Your task to perform on an android device: turn off location Image 0: 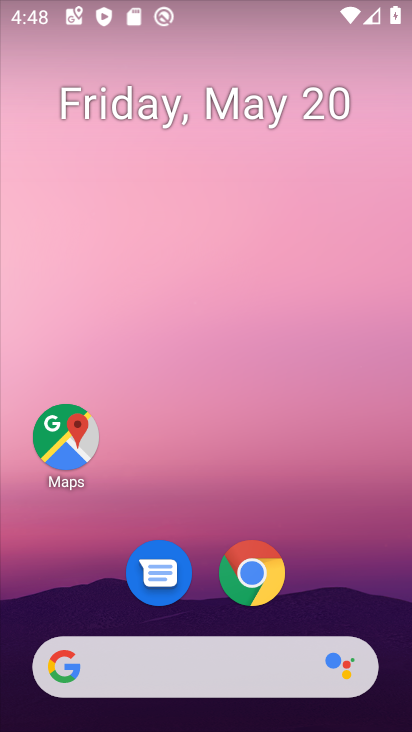
Step 0: drag from (380, 637) to (316, 307)
Your task to perform on an android device: turn off location Image 1: 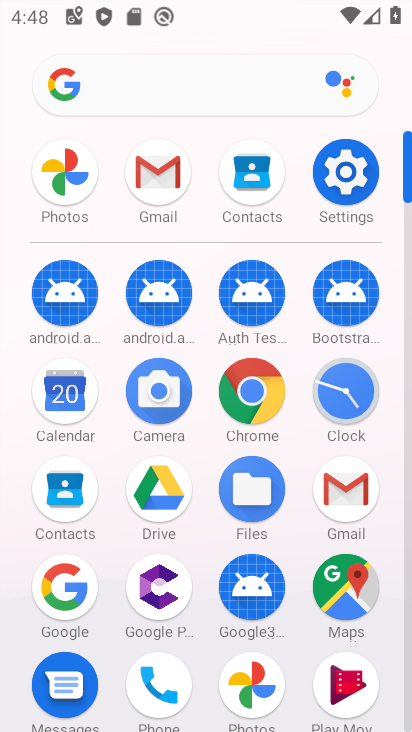
Step 1: click (411, 713)
Your task to perform on an android device: turn off location Image 2: 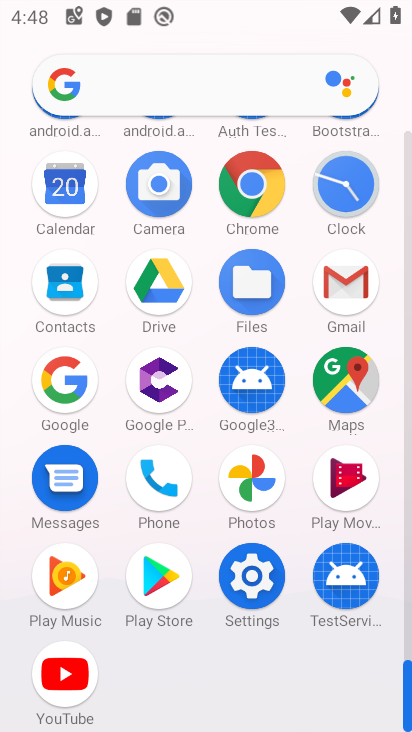
Step 2: click (254, 574)
Your task to perform on an android device: turn off location Image 3: 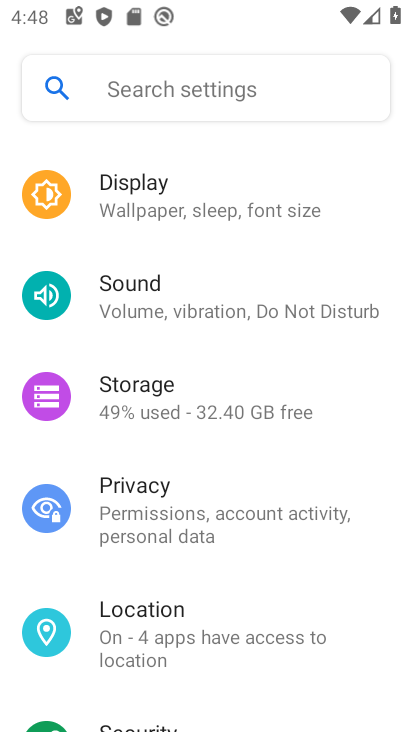
Step 3: click (151, 621)
Your task to perform on an android device: turn off location Image 4: 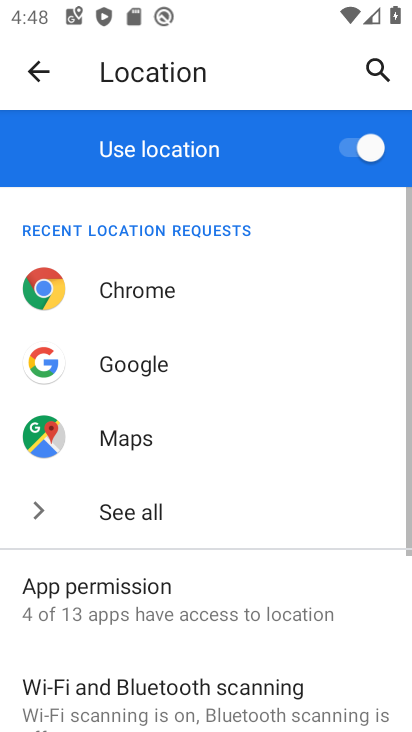
Step 4: click (343, 150)
Your task to perform on an android device: turn off location Image 5: 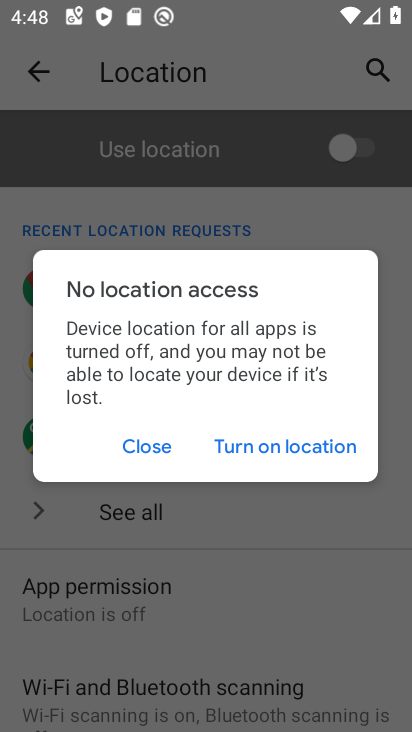
Step 5: click (146, 453)
Your task to perform on an android device: turn off location Image 6: 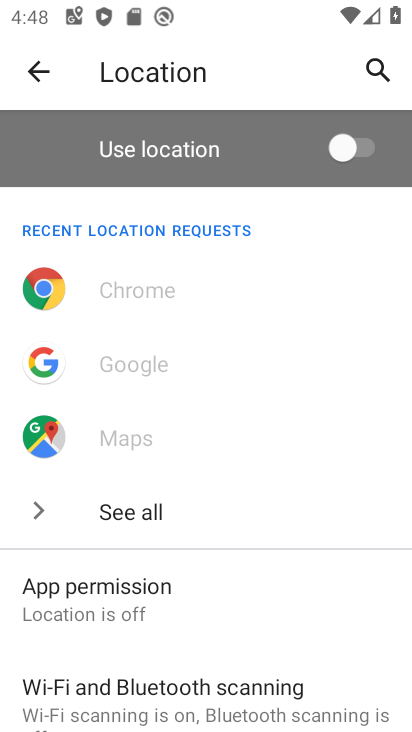
Step 6: task complete